Your task to perform on an android device: Clear the cart on target. Add energizer triple a to the cart on target Image 0: 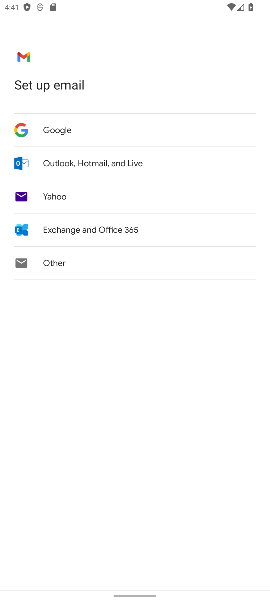
Step 0: press home button
Your task to perform on an android device: Clear the cart on target. Add energizer triple a to the cart on target Image 1: 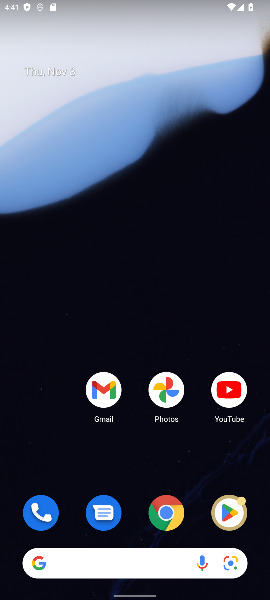
Step 1: click (167, 512)
Your task to perform on an android device: Clear the cart on target. Add energizer triple a to the cart on target Image 2: 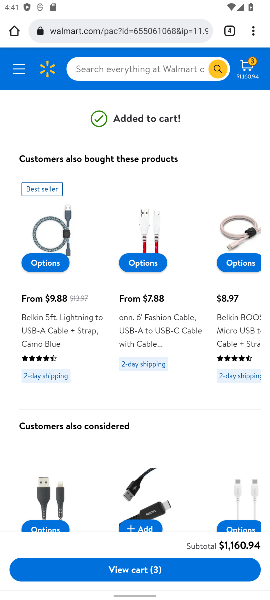
Step 2: click (228, 33)
Your task to perform on an android device: Clear the cart on target. Add energizer triple a to the cart on target Image 3: 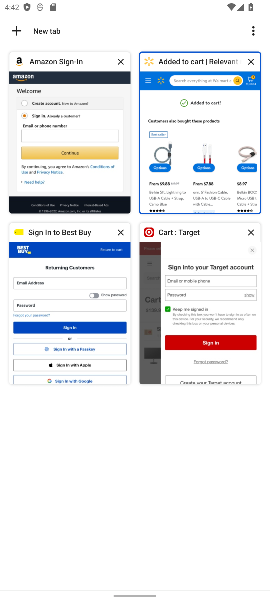
Step 3: click (181, 281)
Your task to perform on an android device: Clear the cart on target. Add energizer triple a to the cart on target Image 4: 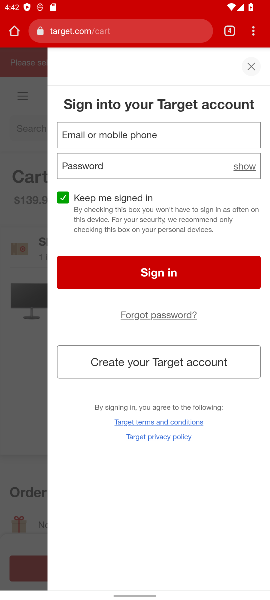
Step 4: click (253, 68)
Your task to perform on an android device: Clear the cart on target. Add energizer triple a to the cart on target Image 5: 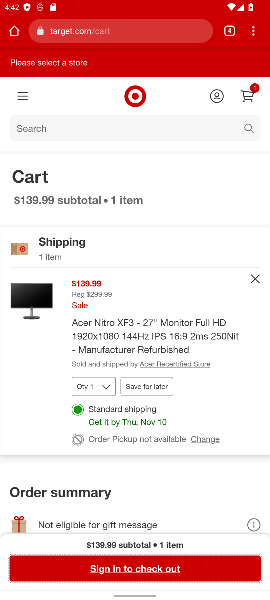
Step 5: click (41, 135)
Your task to perform on an android device: Clear the cart on target. Add energizer triple a to the cart on target Image 6: 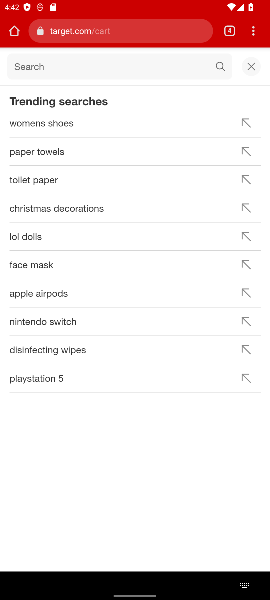
Step 6: type "energizer triple a"
Your task to perform on an android device: Clear the cart on target. Add energizer triple a to the cart on target Image 7: 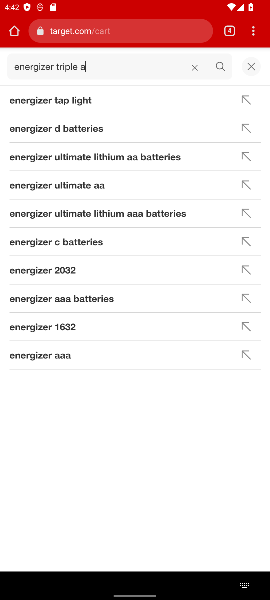
Step 7: click (72, 299)
Your task to perform on an android device: Clear the cart on target. Add energizer triple a to the cart on target Image 8: 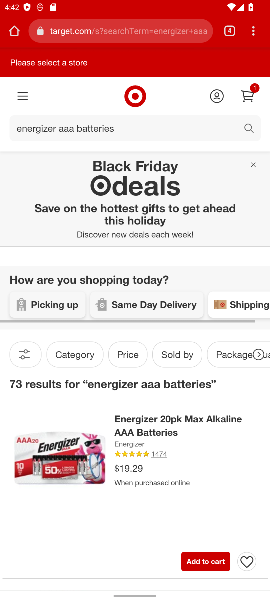
Step 8: click (202, 563)
Your task to perform on an android device: Clear the cart on target. Add energizer triple a to the cart on target Image 9: 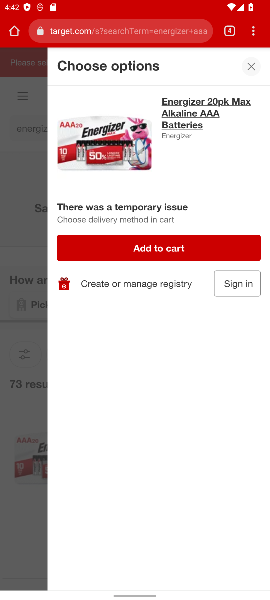
Step 9: click (173, 254)
Your task to perform on an android device: Clear the cart on target. Add energizer triple a to the cart on target Image 10: 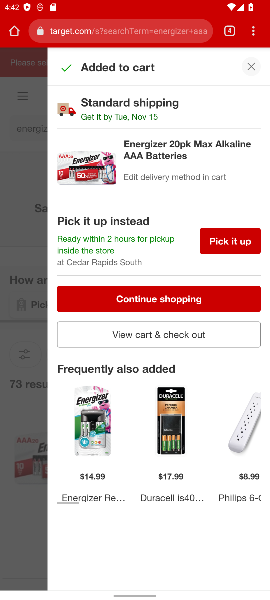
Step 10: task complete